Your task to perform on an android device: all mails in gmail Image 0: 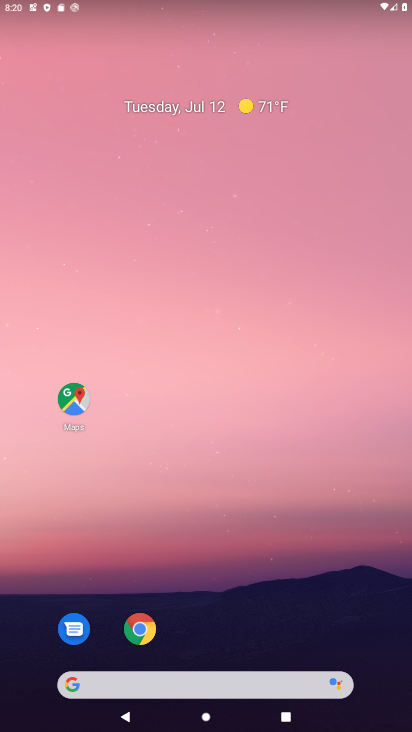
Step 0: drag from (409, 633) to (326, 120)
Your task to perform on an android device: all mails in gmail Image 1: 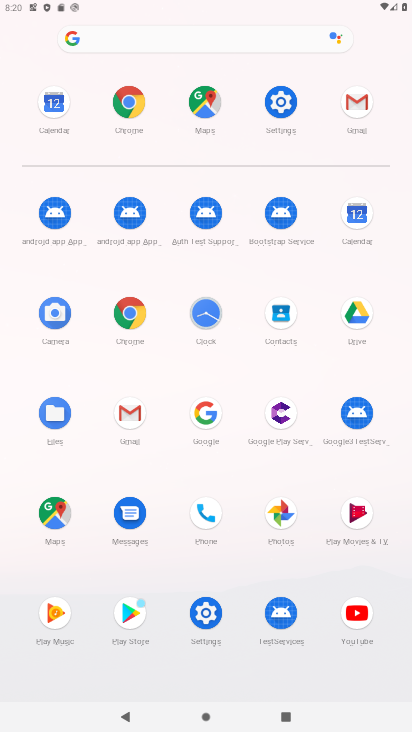
Step 1: click (136, 408)
Your task to perform on an android device: all mails in gmail Image 2: 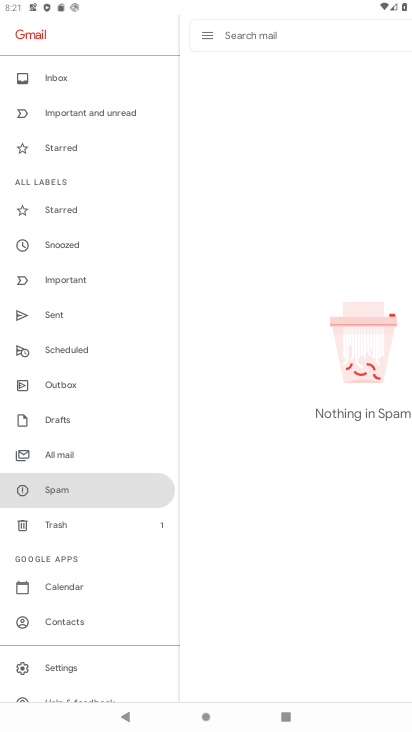
Step 2: task complete